Your task to perform on an android device: Go to Reddit.com Image 0: 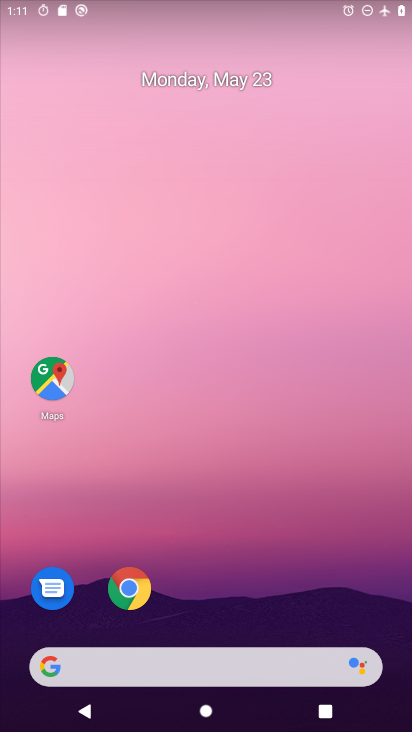
Step 0: drag from (278, 693) to (214, 213)
Your task to perform on an android device: Go to Reddit.com Image 1: 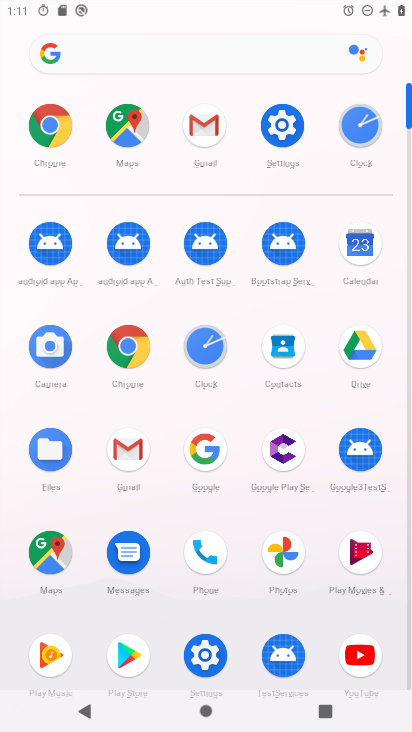
Step 1: click (40, 146)
Your task to perform on an android device: Go to Reddit.com Image 2: 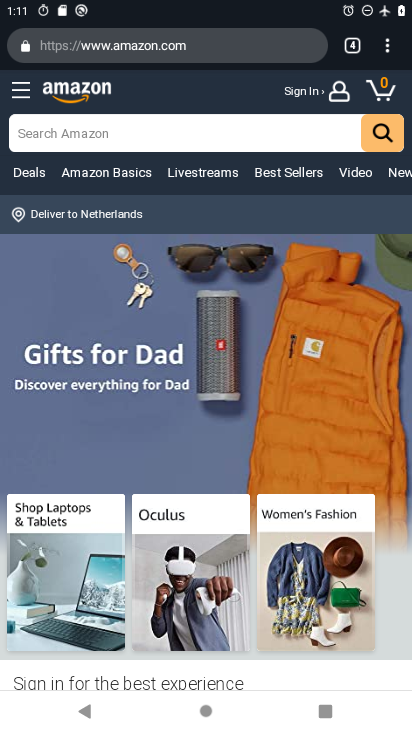
Step 2: click (163, 38)
Your task to perform on an android device: Go to Reddit.com Image 3: 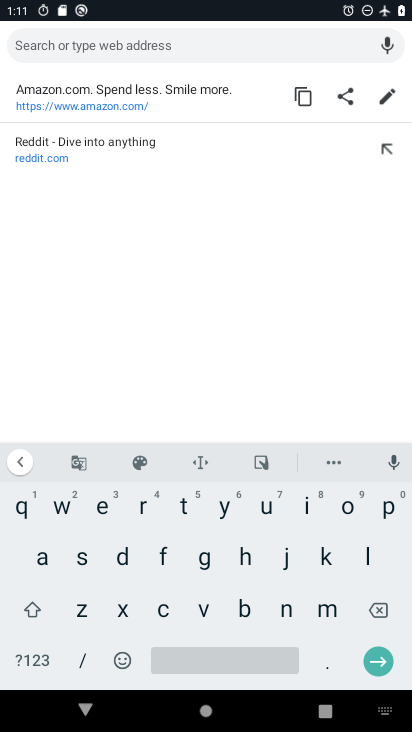
Step 3: click (138, 509)
Your task to perform on an android device: Go to Reddit.com Image 4: 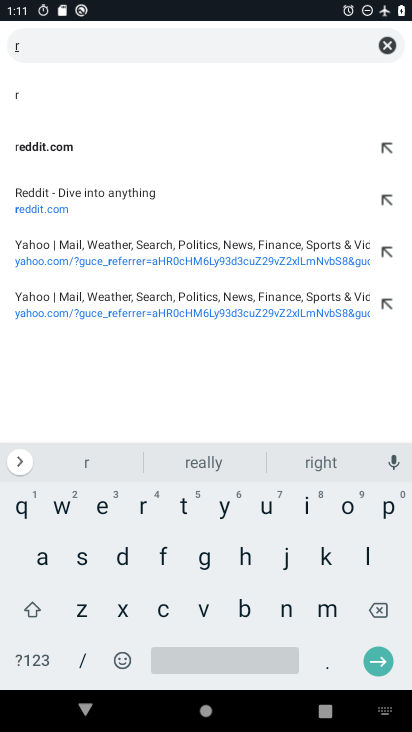
Step 4: click (105, 508)
Your task to perform on an android device: Go to Reddit.com Image 5: 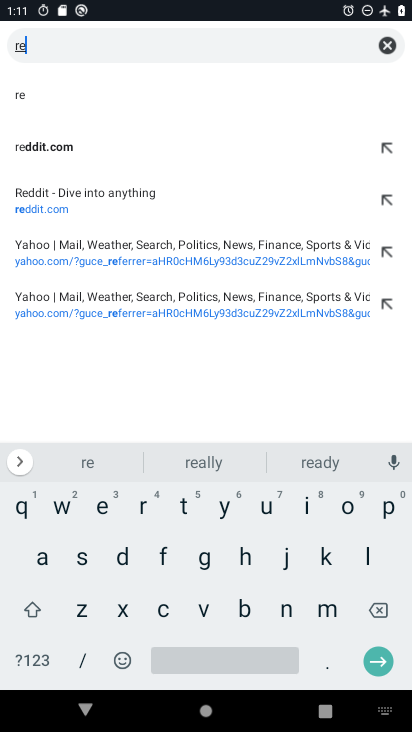
Step 5: click (52, 159)
Your task to perform on an android device: Go to Reddit.com Image 6: 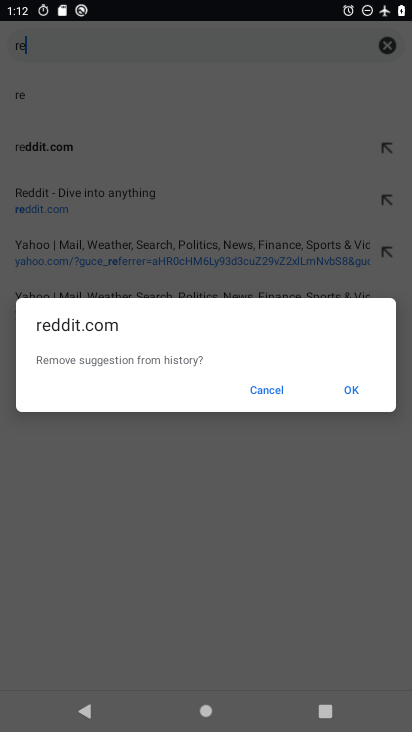
Step 6: click (248, 388)
Your task to perform on an android device: Go to Reddit.com Image 7: 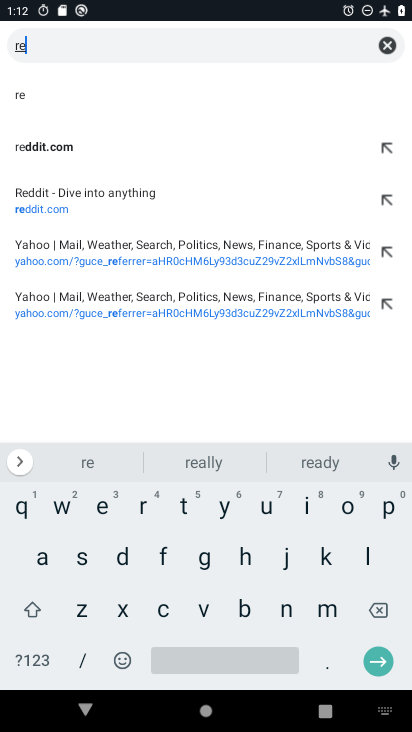
Step 7: click (80, 137)
Your task to perform on an android device: Go to Reddit.com Image 8: 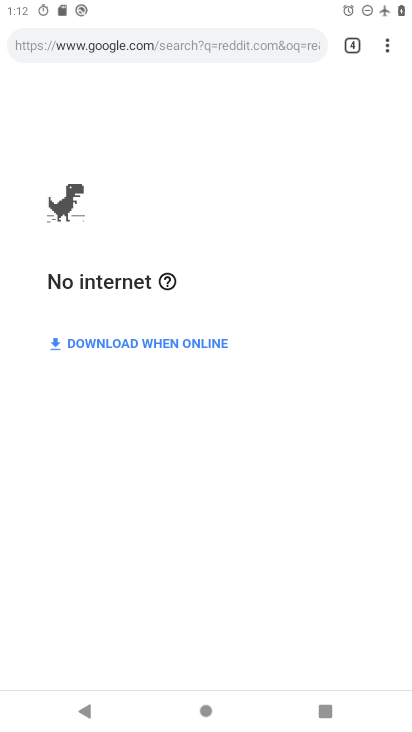
Step 8: press home button
Your task to perform on an android device: Go to Reddit.com Image 9: 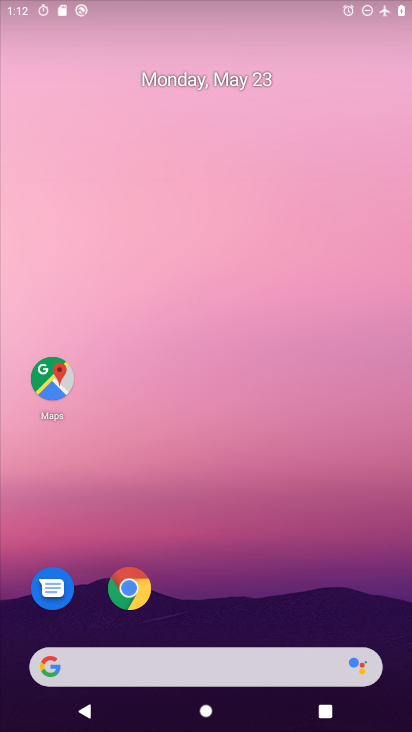
Step 9: drag from (274, 697) to (256, 228)
Your task to perform on an android device: Go to Reddit.com Image 10: 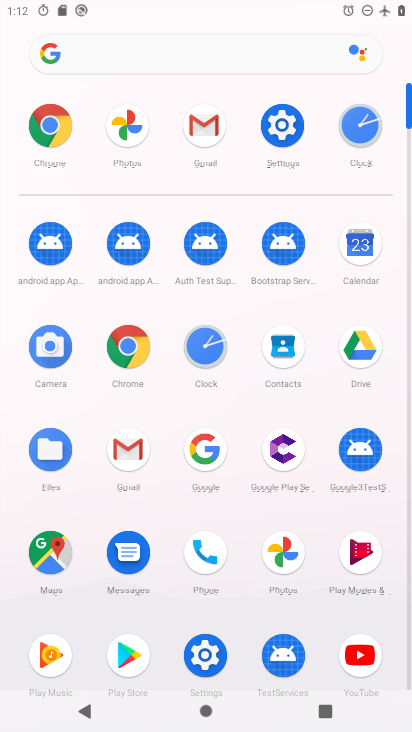
Step 10: click (290, 127)
Your task to perform on an android device: Go to Reddit.com Image 11: 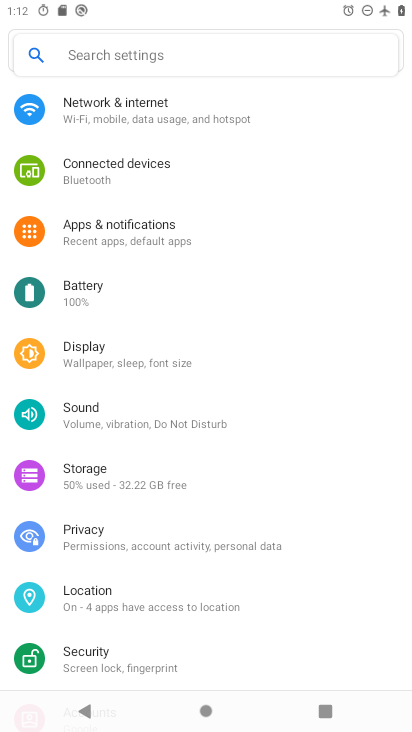
Step 11: click (155, 133)
Your task to perform on an android device: Go to Reddit.com Image 12: 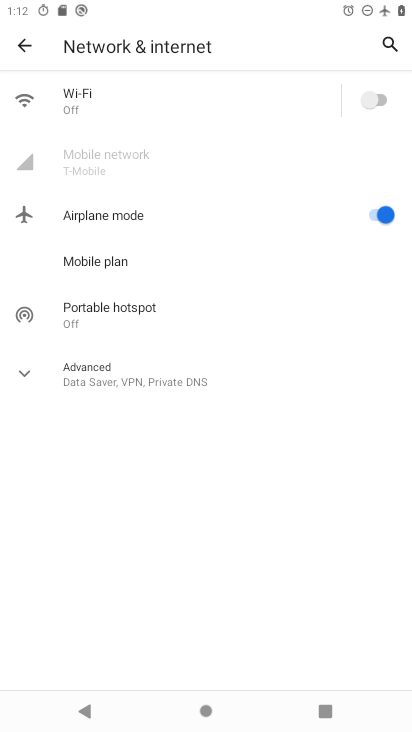
Step 12: click (378, 214)
Your task to perform on an android device: Go to Reddit.com Image 13: 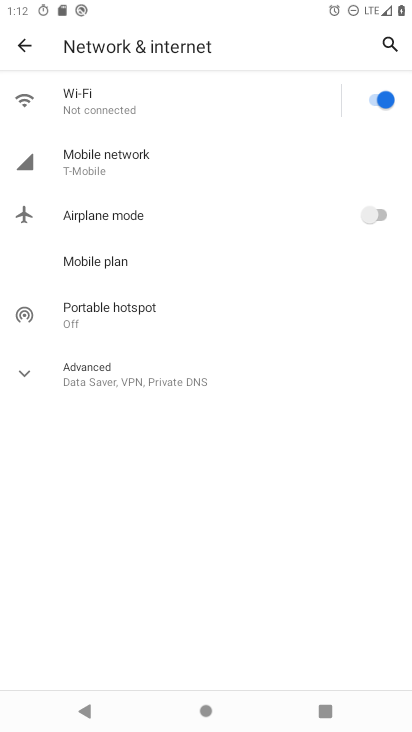
Step 13: press home button
Your task to perform on an android device: Go to Reddit.com Image 14: 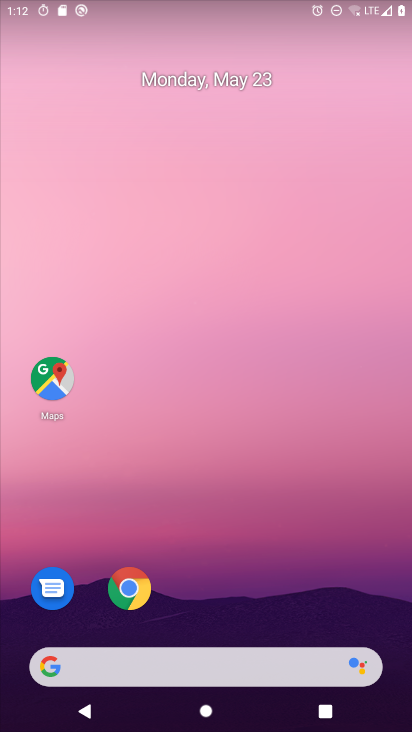
Step 14: drag from (248, 697) to (316, 257)
Your task to perform on an android device: Go to Reddit.com Image 15: 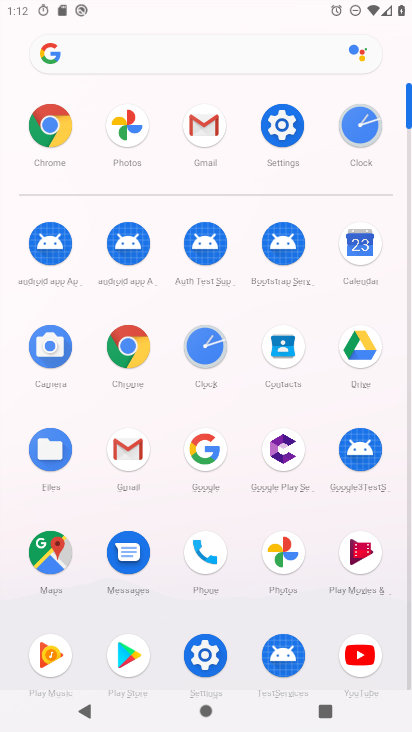
Step 15: click (53, 135)
Your task to perform on an android device: Go to Reddit.com Image 16: 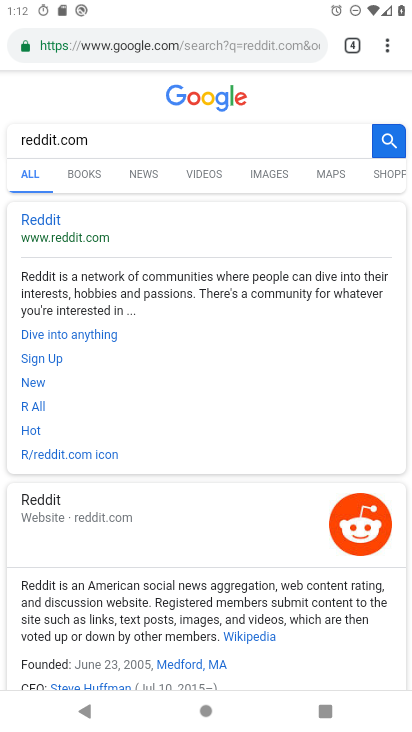
Step 16: click (60, 235)
Your task to perform on an android device: Go to Reddit.com Image 17: 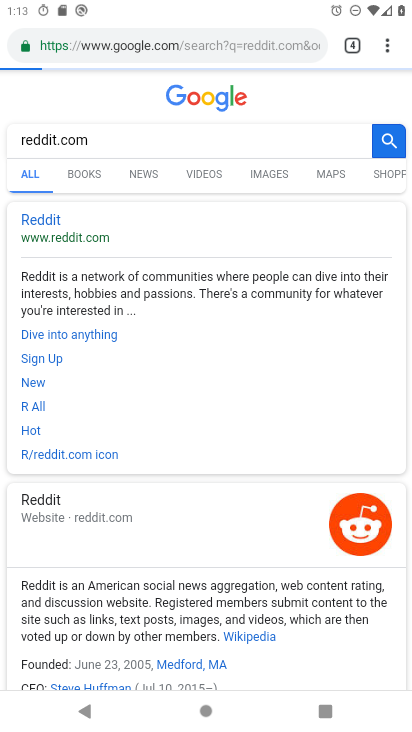
Step 17: task complete